Your task to perform on an android device: allow cookies in the chrome app Image 0: 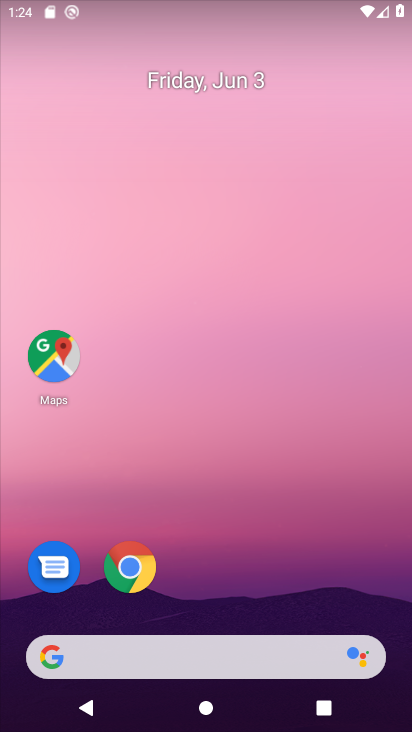
Step 0: drag from (175, 567) to (156, 90)
Your task to perform on an android device: allow cookies in the chrome app Image 1: 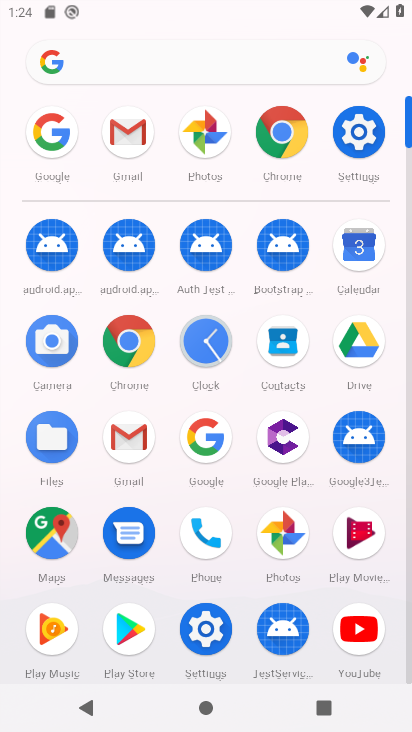
Step 1: click (117, 333)
Your task to perform on an android device: allow cookies in the chrome app Image 2: 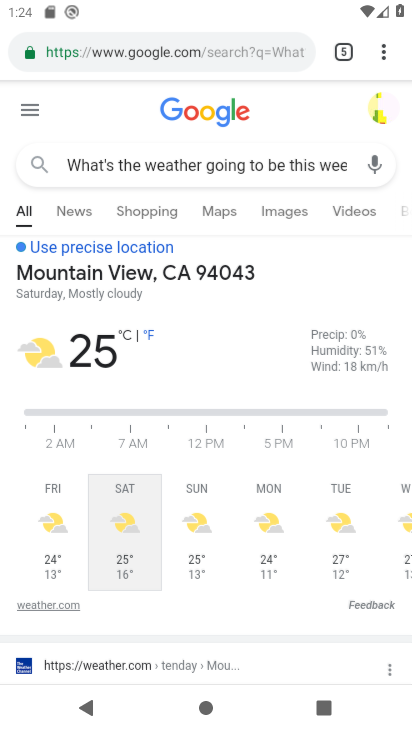
Step 2: click (380, 39)
Your task to perform on an android device: allow cookies in the chrome app Image 3: 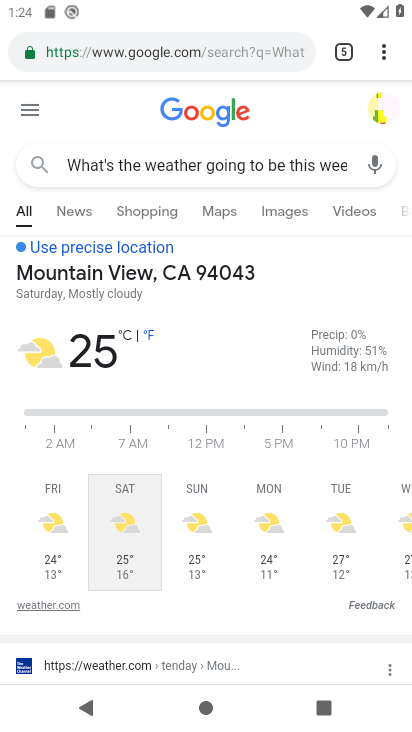
Step 3: click (381, 53)
Your task to perform on an android device: allow cookies in the chrome app Image 4: 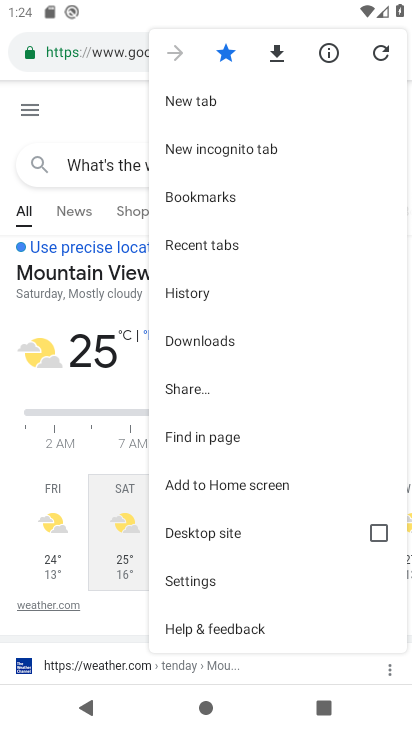
Step 4: click (204, 558)
Your task to perform on an android device: allow cookies in the chrome app Image 5: 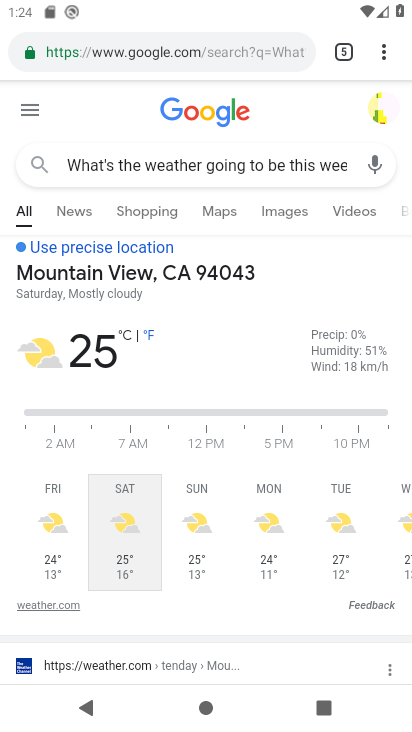
Step 5: click (216, 585)
Your task to perform on an android device: allow cookies in the chrome app Image 6: 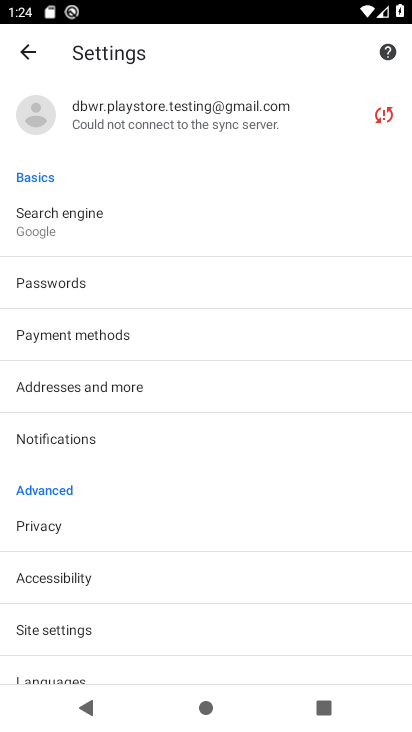
Step 6: drag from (110, 596) to (126, 410)
Your task to perform on an android device: allow cookies in the chrome app Image 7: 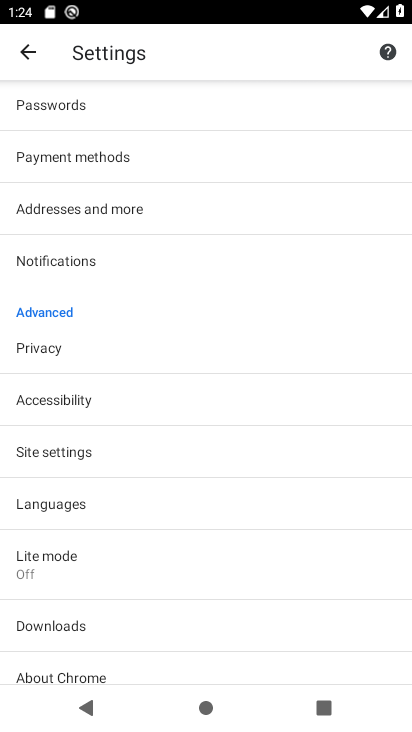
Step 7: click (114, 445)
Your task to perform on an android device: allow cookies in the chrome app Image 8: 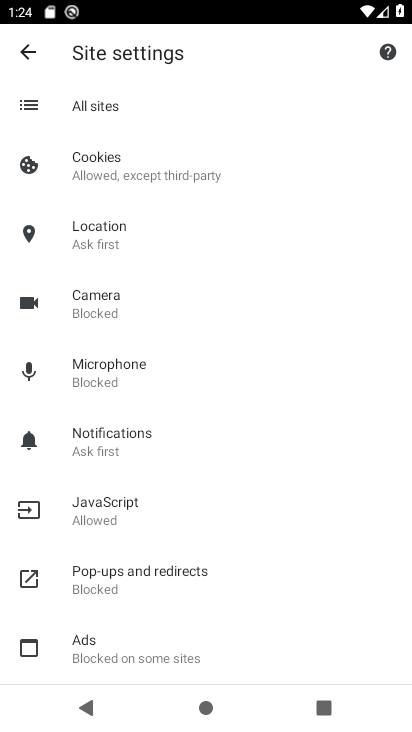
Step 8: click (162, 157)
Your task to perform on an android device: allow cookies in the chrome app Image 9: 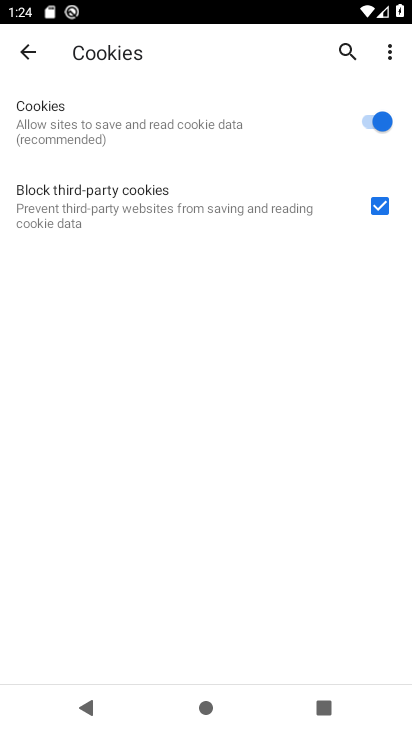
Step 9: task complete